Your task to perform on an android device: Go to calendar. Show me events next week Image 0: 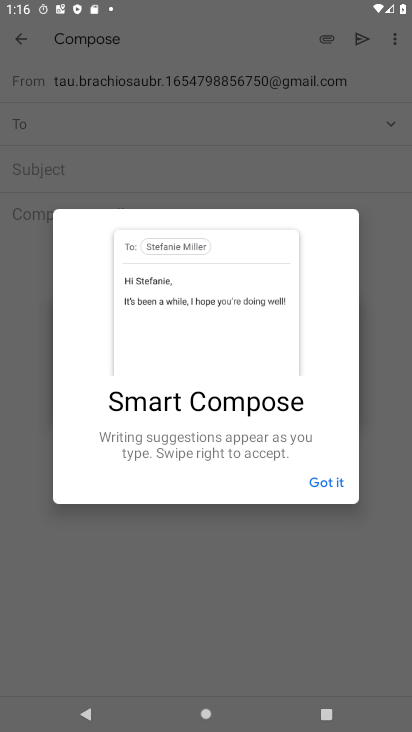
Step 0: press home button
Your task to perform on an android device: Go to calendar. Show me events next week Image 1: 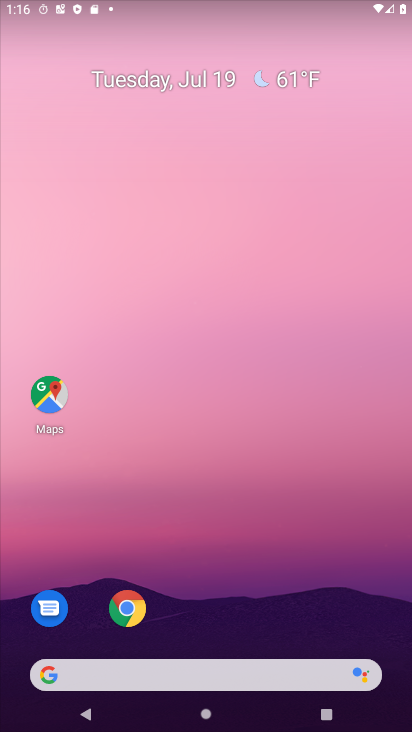
Step 1: drag from (274, 666) to (276, 72)
Your task to perform on an android device: Go to calendar. Show me events next week Image 2: 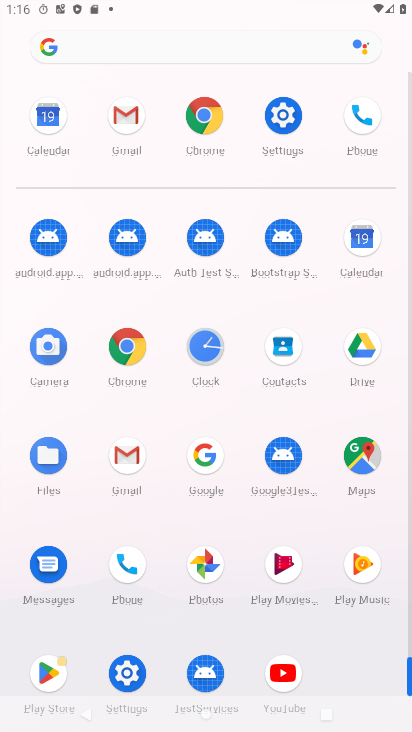
Step 2: click (365, 249)
Your task to perform on an android device: Go to calendar. Show me events next week Image 3: 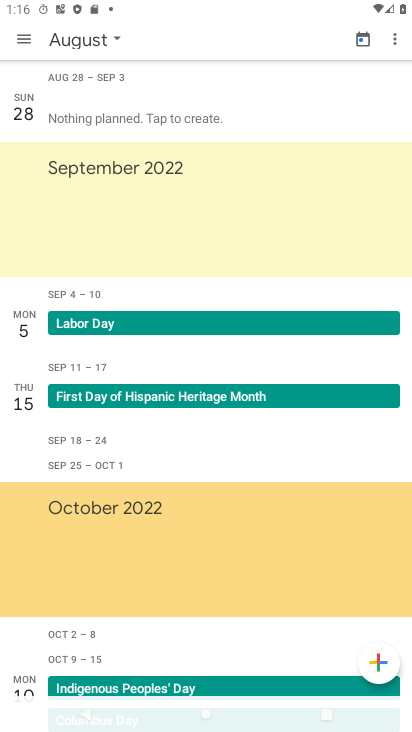
Step 3: click (89, 34)
Your task to perform on an android device: Go to calendar. Show me events next week Image 4: 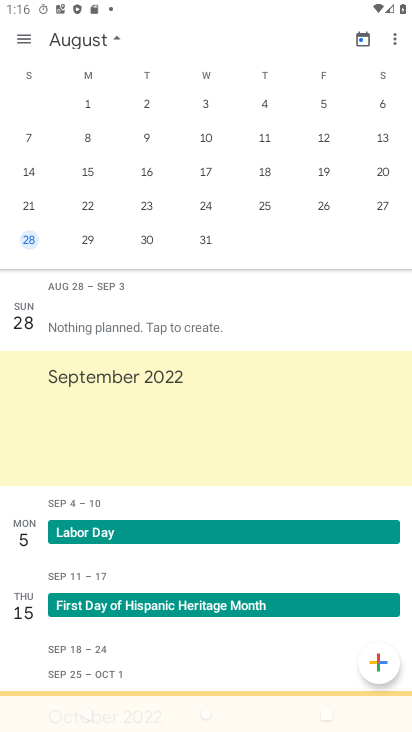
Step 4: drag from (296, 202) to (12, 203)
Your task to perform on an android device: Go to calendar. Show me events next week Image 5: 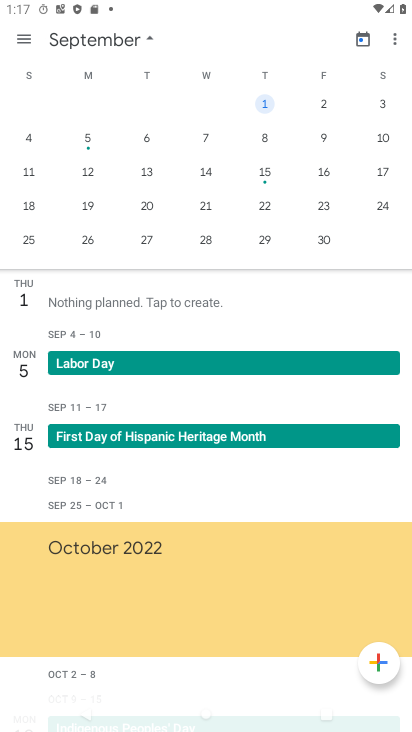
Step 5: click (201, 140)
Your task to perform on an android device: Go to calendar. Show me events next week Image 6: 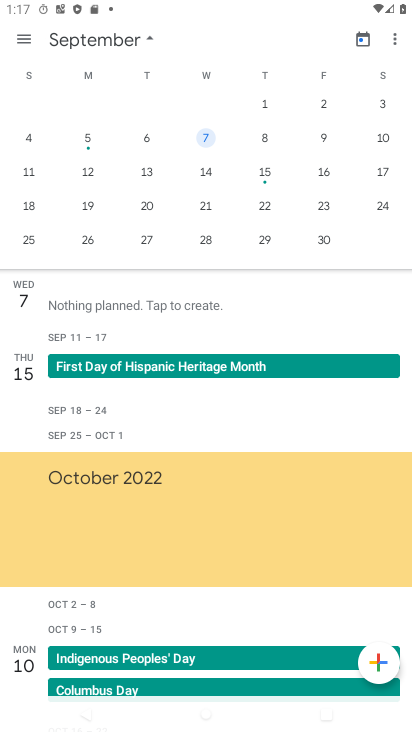
Step 6: task complete